Your task to perform on an android device: set the timer Image 0: 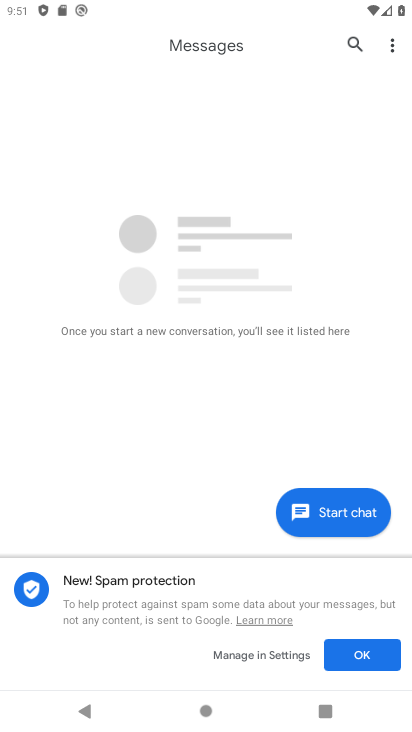
Step 0: press home button
Your task to perform on an android device: set the timer Image 1: 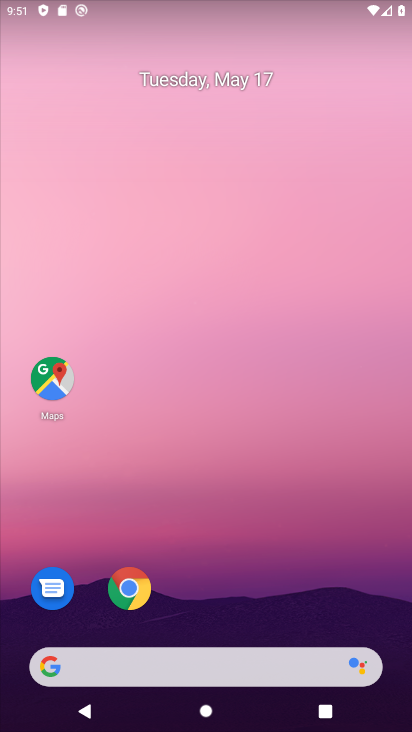
Step 1: drag from (193, 728) to (193, 60)
Your task to perform on an android device: set the timer Image 2: 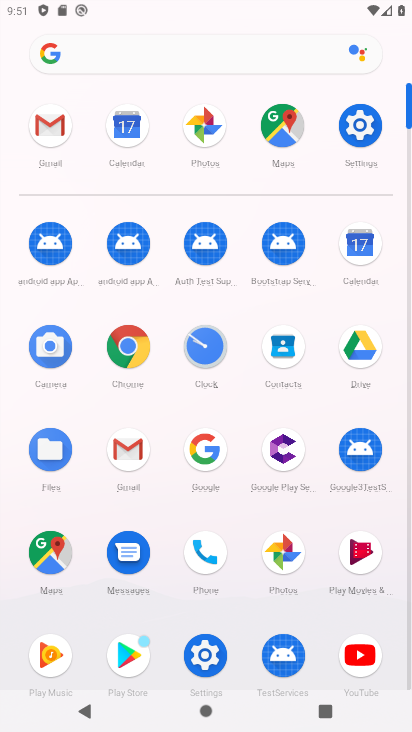
Step 2: click (202, 355)
Your task to perform on an android device: set the timer Image 3: 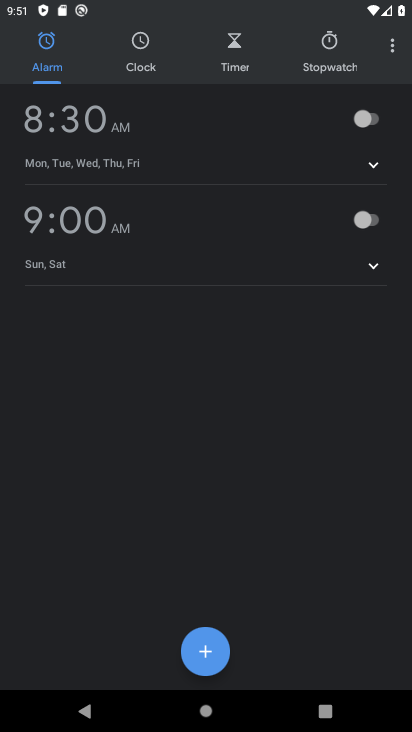
Step 3: click (234, 50)
Your task to perform on an android device: set the timer Image 4: 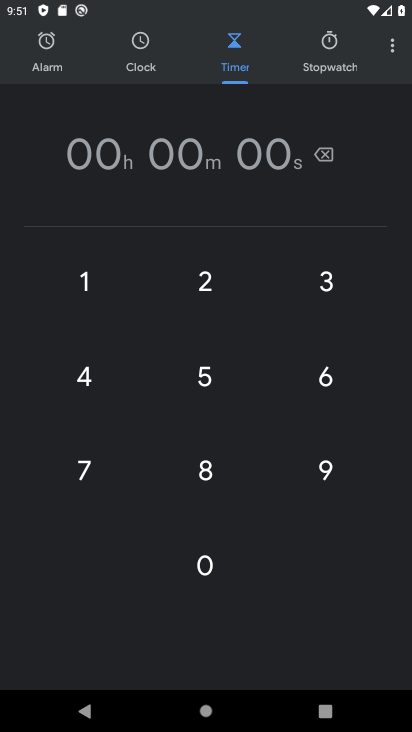
Step 4: click (205, 278)
Your task to perform on an android device: set the timer Image 5: 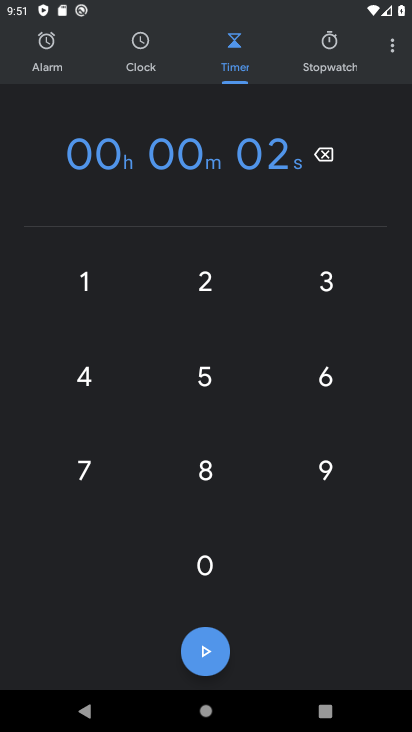
Step 5: click (83, 380)
Your task to perform on an android device: set the timer Image 6: 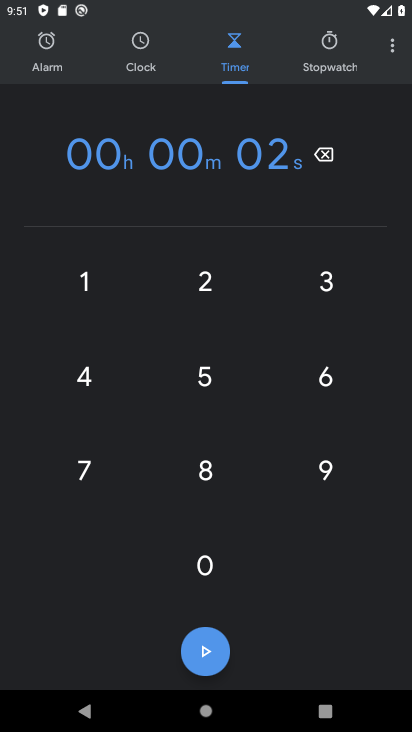
Step 6: click (83, 380)
Your task to perform on an android device: set the timer Image 7: 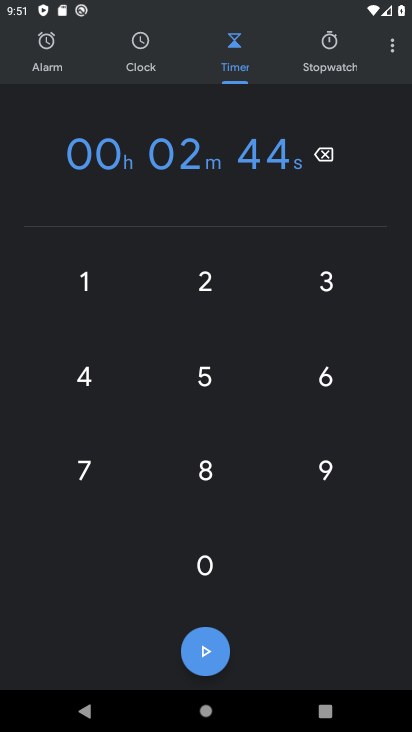
Step 7: click (198, 649)
Your task to perform on an android device: set the timer Image 8: 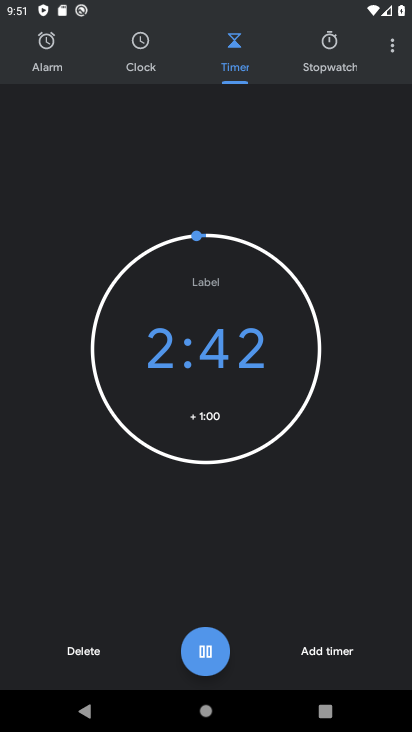
Step 8: task complete